Your task to perform on an android device: open device folders in google photos Image 0: 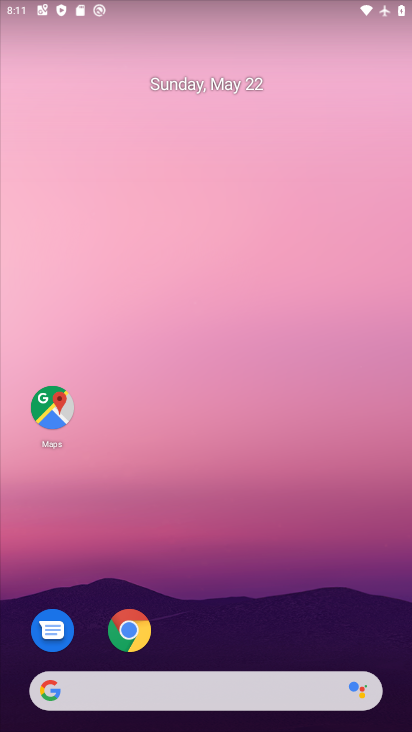
Step 0: drag from (370, 642) to (265, 132)
Your task to perform on an android device: open device folders in google photos Image 1: 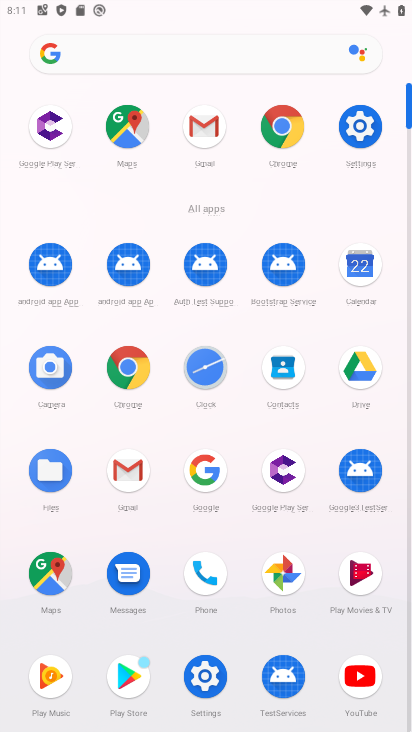
Step 1: click (409, 707)
Your task to perform on an android device: open device folders in google photos Image 2: 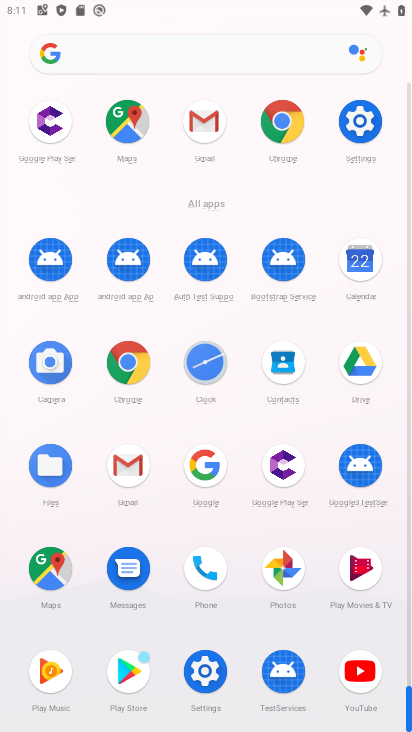
Step 2: click (283, 568)
Your task to perform on an android device: open device folders in google photos Image 3: 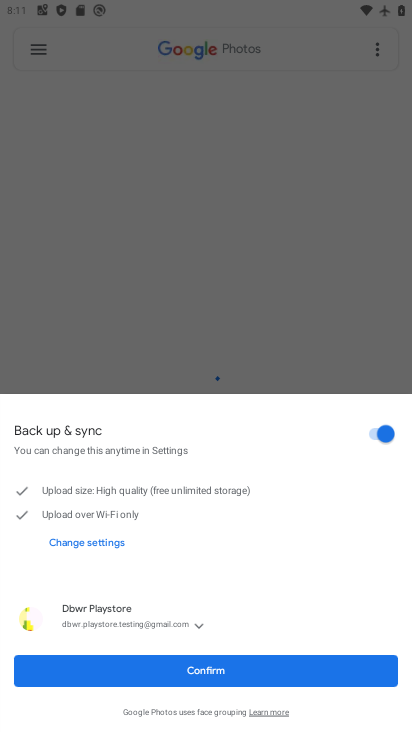
Step 3: click (206, 668)
Your task to perform on an android device: open device folders in google photos Image 4: 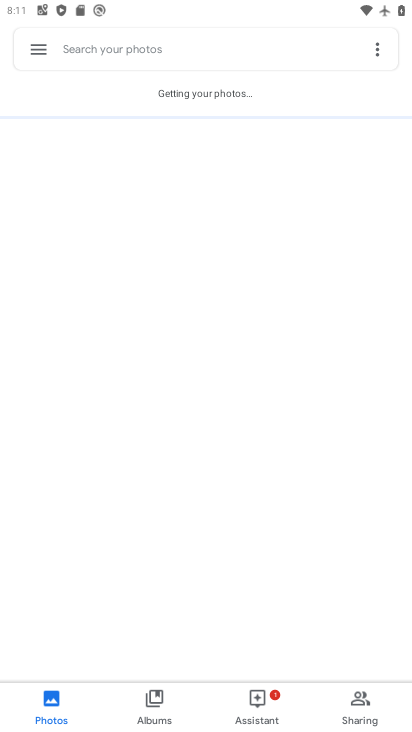
Step 4: click (36, 49)
Your task to perform on an android device: open device folders in google photos Image 5: 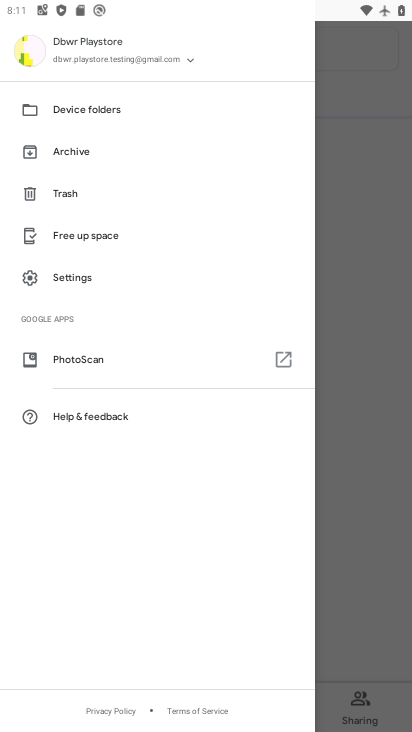
Step 5: click (88, 106)
Your task to perform on an android device: open device folders in google photos Image 6: 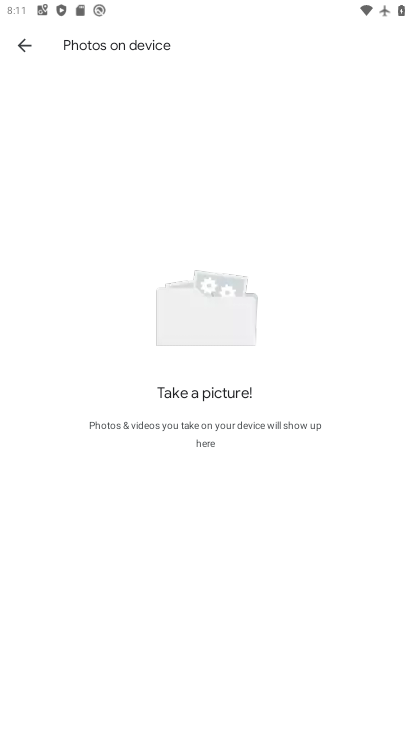
Step 6: task complete